Your task to perform on an android device: turn off sleep mode Image 0: 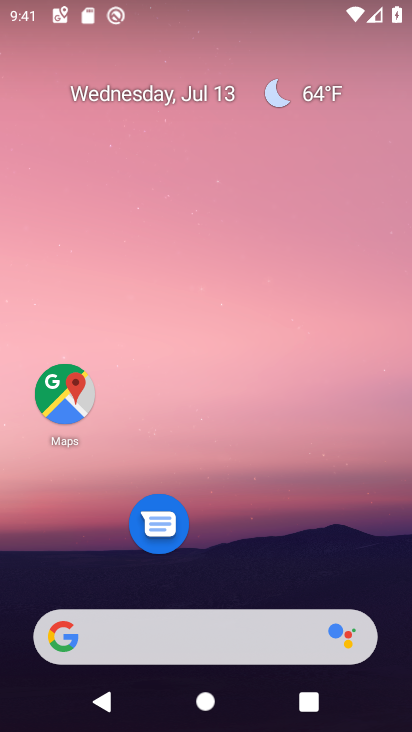
Step 0: drag from (237, 577) to (249, 18)
Your task to perform on an android device: turn off sleep mode Image 1: 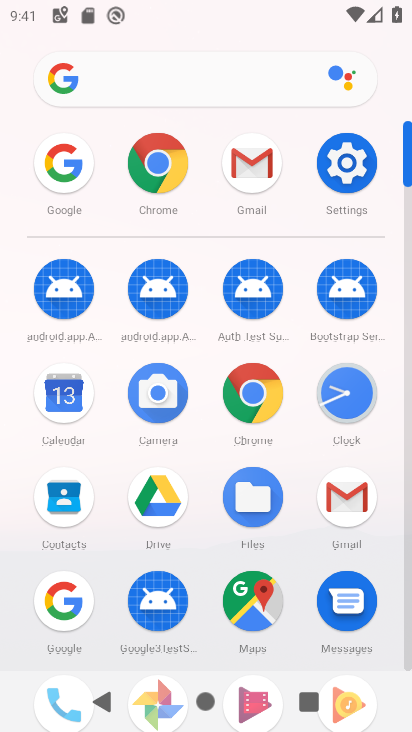
Step 1: click (339, 160)
Your task to perform on an android device: turn off sleep mode Image 2: 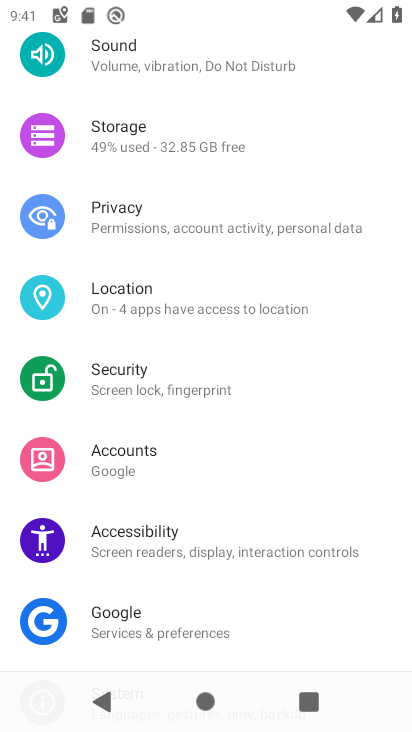
Step 2: drag from (111, 144) to (113, 564)
Your task to perform on an android device: turn off sleep mode Image 3: 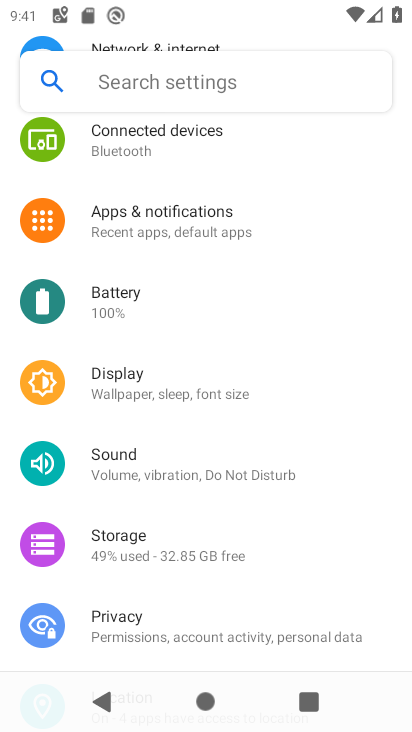
Step 3: click (139, 394)
Your task to perform on an android device: turn off sleep mode Image 4: 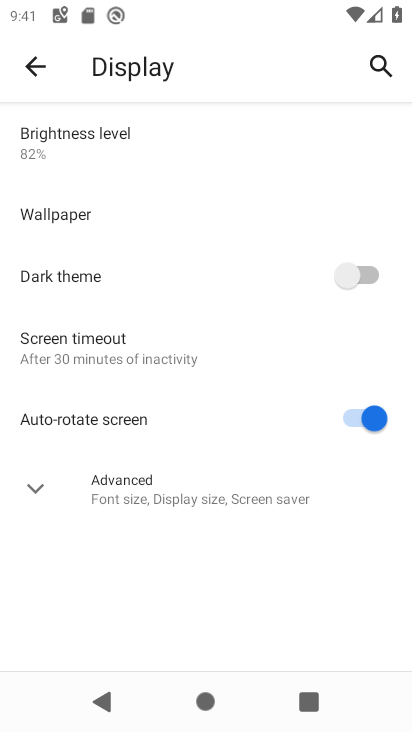
Step 4: click (127, 481)
Your task to perform on an android device: turn off sleep mode Image 5: 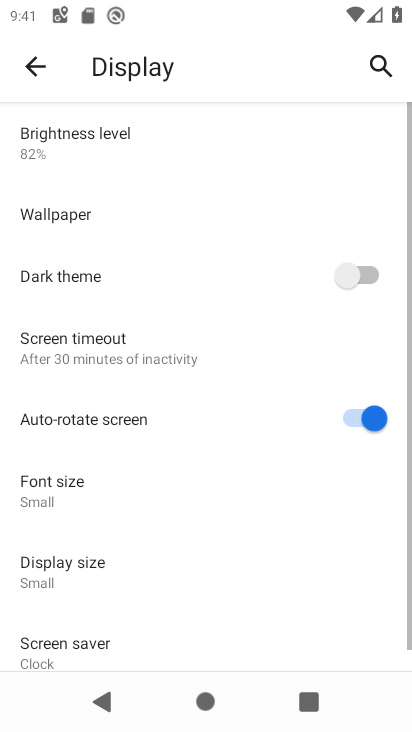
Step 5: task complete